Your task to perform on an android device: change text size in settings app Image 0: 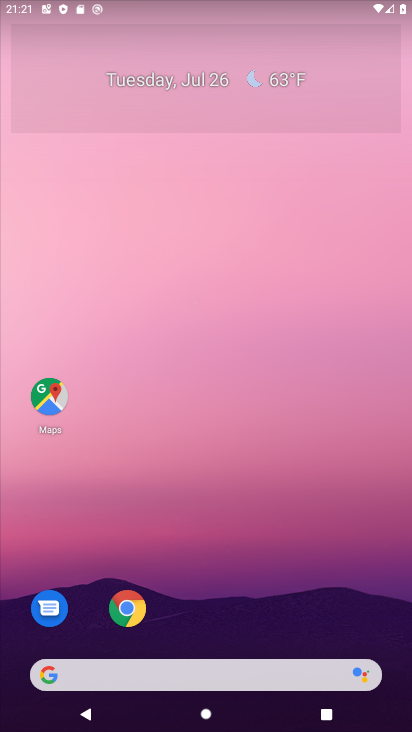
Step 0: drag from (16, 710) to (306, 21)
Your task to perform on an android device: change text size in settings app Image 1: 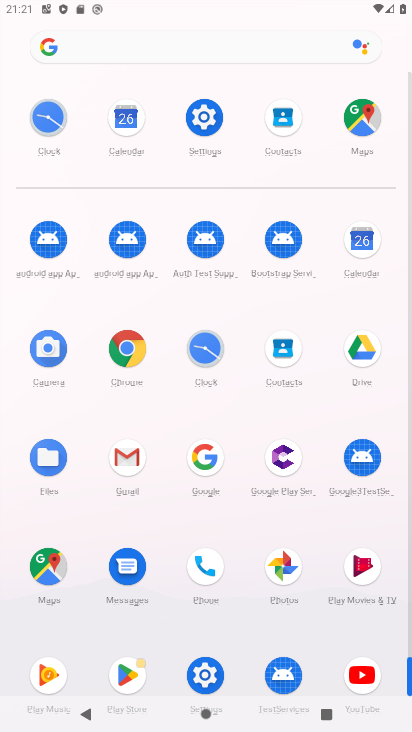
Step 1: click (206, 663)
Your task to perform on an android device: change text size in settings app Image 2: 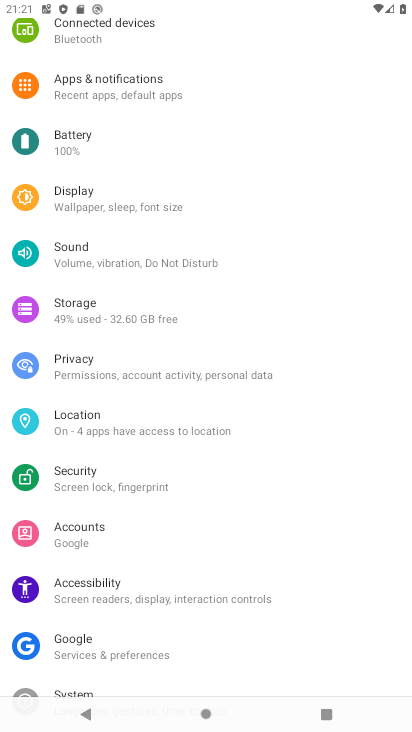
Step 2: click (138, 218)
Your task to perform on an android device: change text size in settings app Image 3: 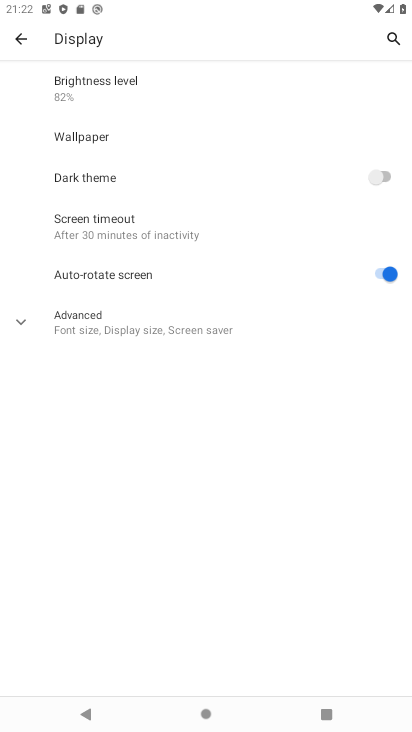
Step 3: click (136, 331)
Your task to perform on an android device: change text size in settings app Image 4: 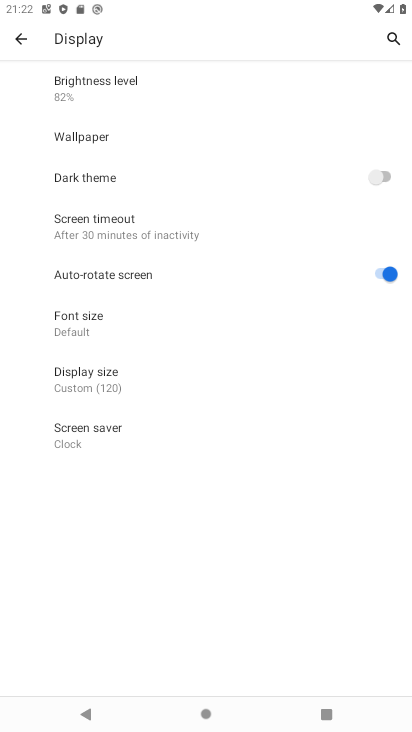
Step 4: click (98, 316)
Your task to perform on an android device: change text size in settings app Image 5: 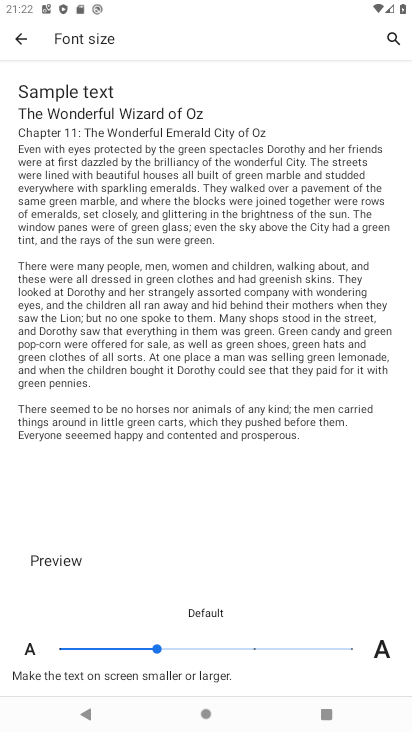
Step 5: click (198, 647)
Your task to perform on an android device: change text size in settings app Image 6: 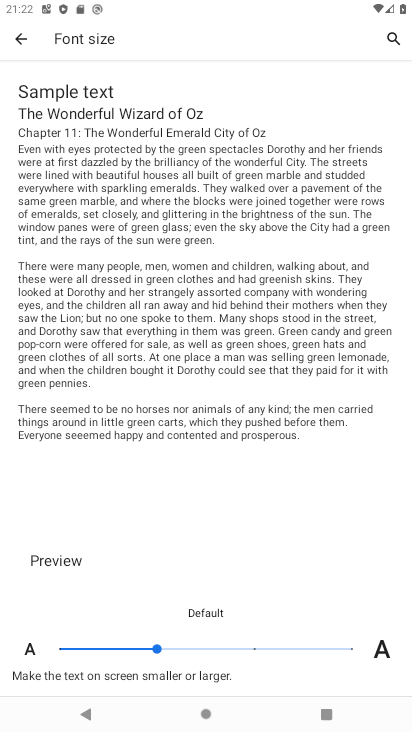
Step 6: click (197, 641)
Your task to perform on an android device: change text size in settings app Image 7: 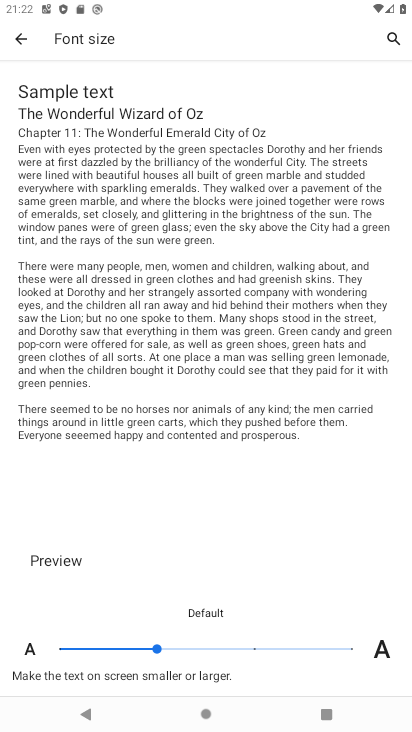
Step 7: click (167, 646)
Your task to perform on an android device: change text size in settings app Image 8: 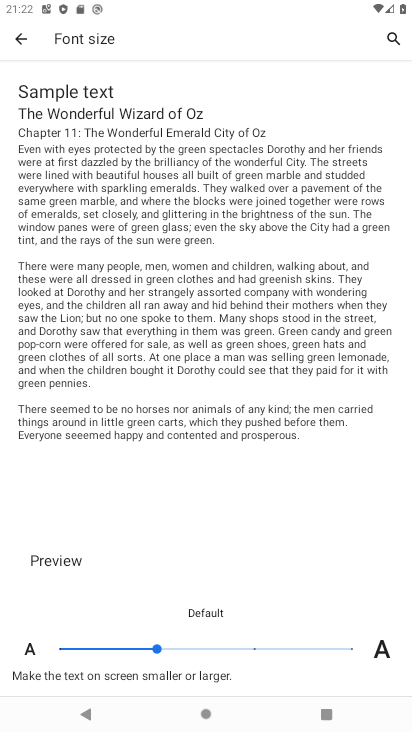
Step 8: click (210, 643)
Your task to perform on an android device: change text size in settings app Image 9: 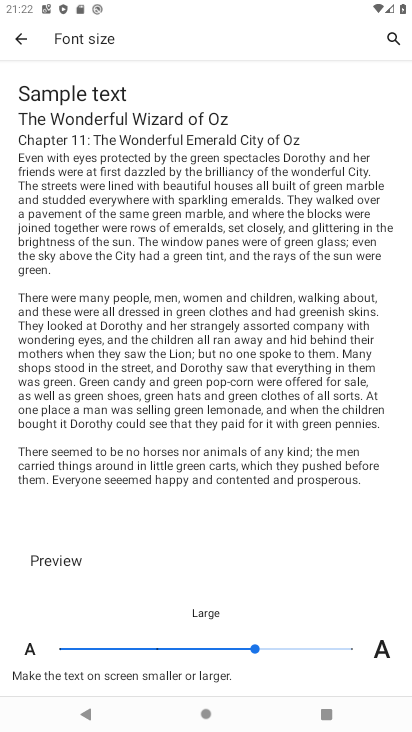
Step 9: click (210, 645)
Your task to perform on an android device: change text size in settings app Image 10: 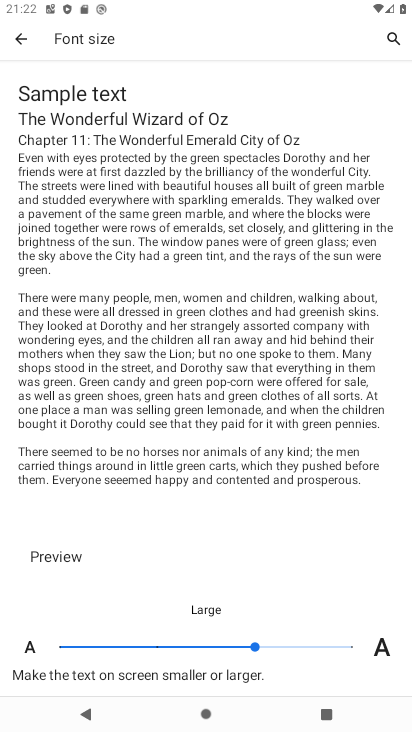
Step 10: task complete